Your task to perform on an android device: see tabs open on other devices in the chrome app Image 0: 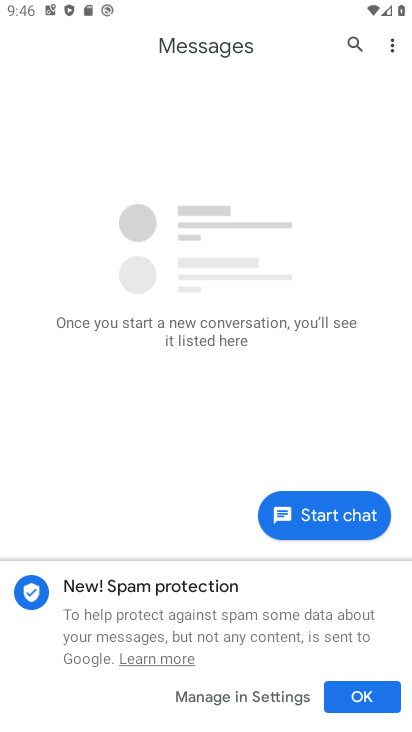
Step 0: press home button
Your task to perform on an android device: see tabs open on other devices in the chrome app Image 1: 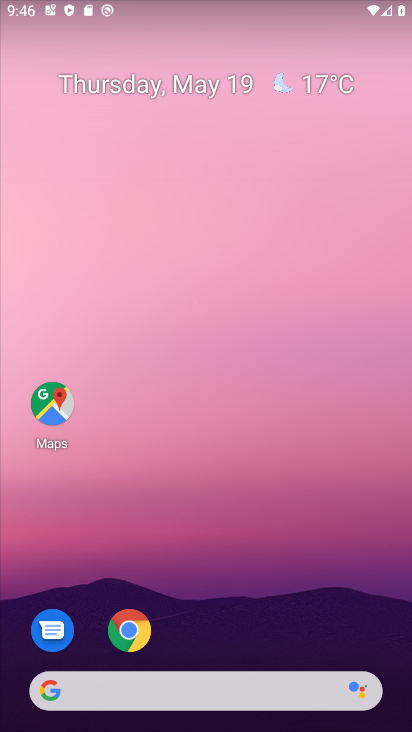
Step 1: click (135, 640)
Your task to perform on an android device: see tabs open on other devices in the chrome app Image 2: 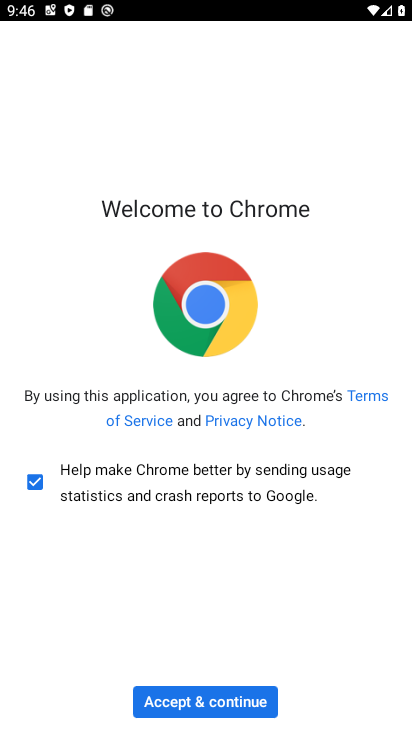
Step 2: click (181, 702)
Your task to perform on an android device: see tabs open on other devices in the chrome app Image 3: 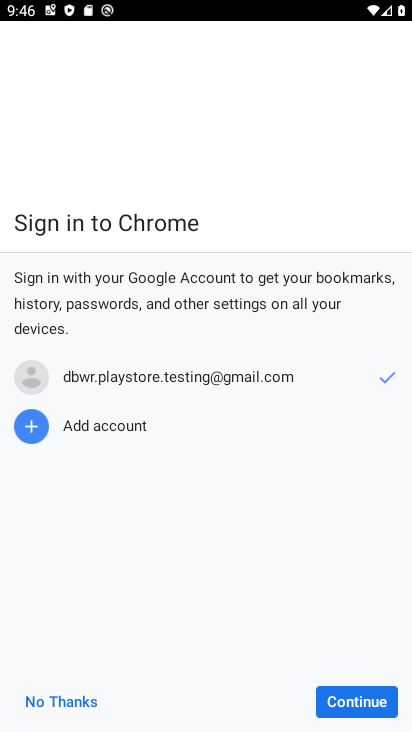
Step 3: click (181, 702)
Your task to perform on an android device: see tabs open on other devices in the chrome app Image 4: 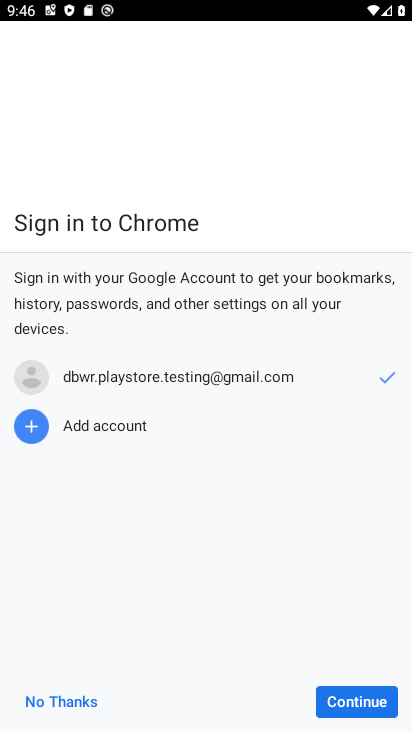
Step 4: click (346, 702)
Your task to perform on an android device: see tabs open on other devices in the chrome app Image 5: 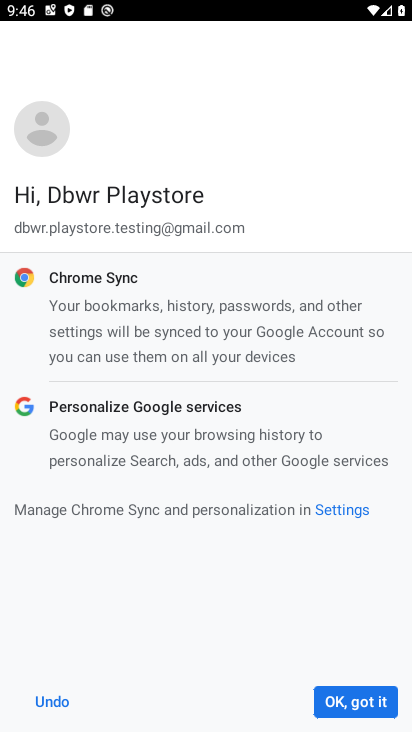
Step 5: click (346, 702)
Your task to perform on an android device: see tabs open on other devices in the chrome app Image 6: 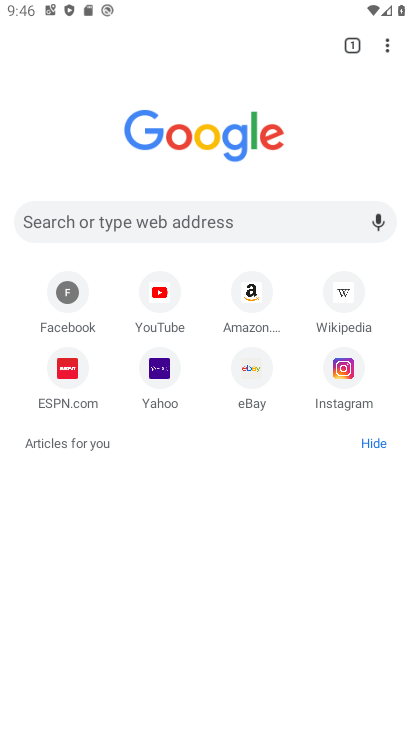
Step 6: click (312, 582)
Your task to perform on an android device: see tabs open on other devices in the chrome app Image 7: 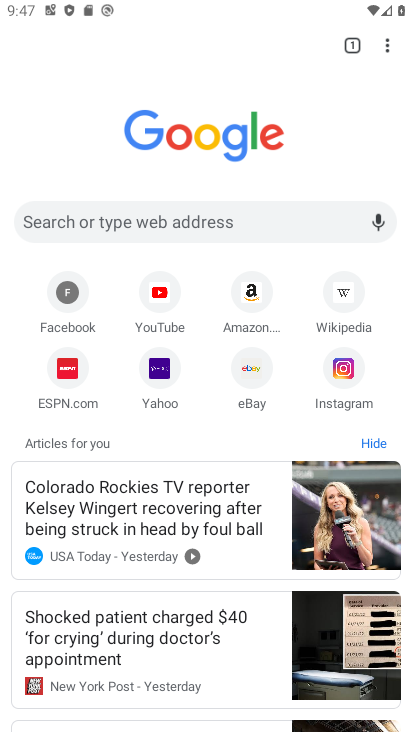
Step 7: press home button
Your task to perform on an android device: see tabs open on other devices in the chrome app Image 8: 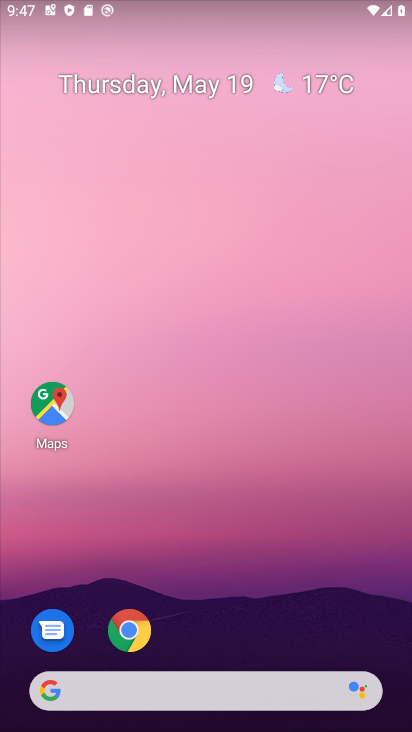
Step 8: click (137, 621)
Your task to perform on an android device: see tabs open on other devices in the chrome app Image 9: 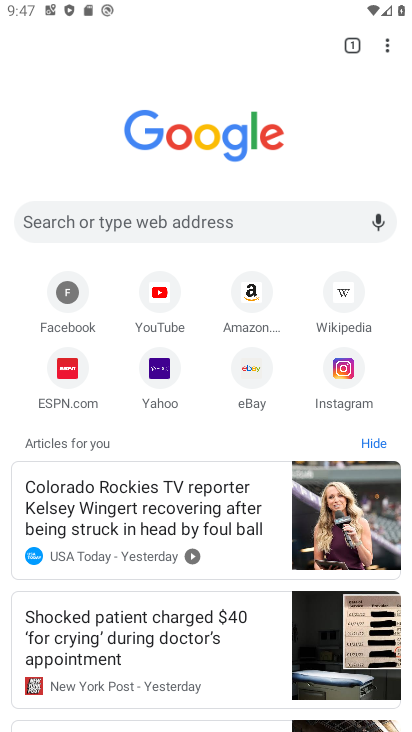
Step 9: click (389, 42)
Your task to perform on an android device: see tabs open on other devices in the chrome app Image 10: 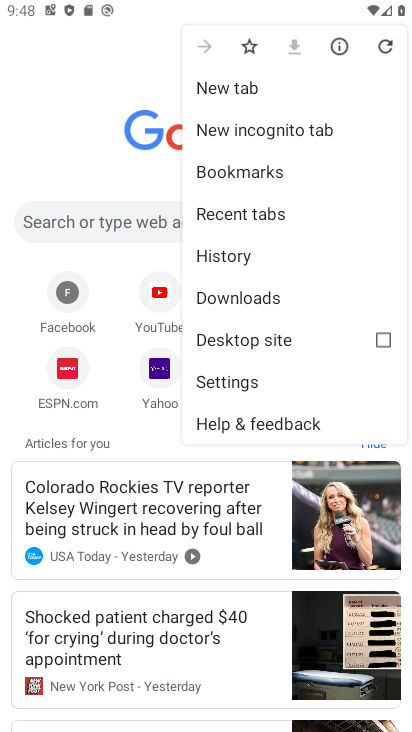
Step 10: click (237, 209)
Your task to perform on an android device: see tabs open on other devices in the chrome app Image 11: 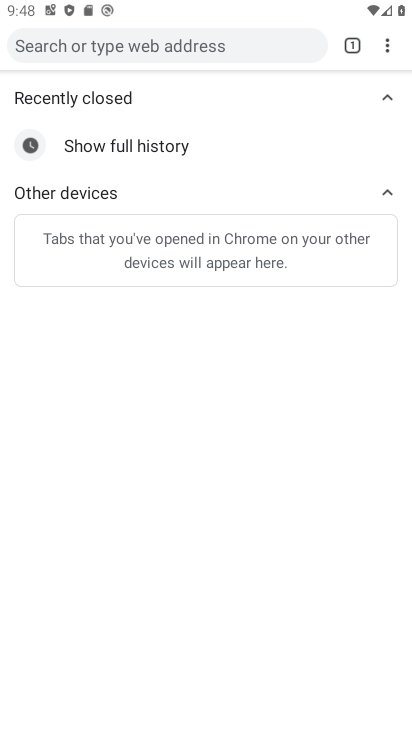
Step 11: task complete